Your task to perform on an android device: turn vacation reply on in the gmail app Image 0: 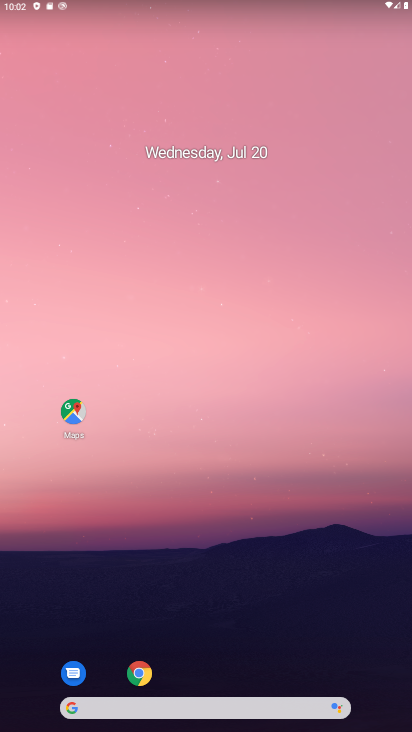
Step 0: drag from (197, 276) to (225, 387)
Your task to perform on an android device: turn vacation reply on in the gmail app Image 1: 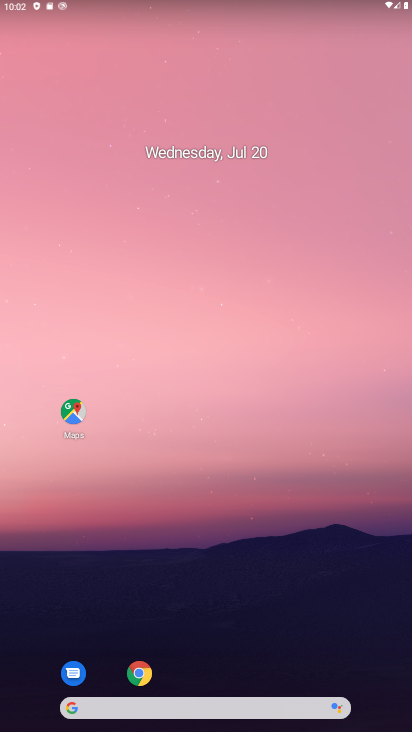
Step 1: drag from (190, 160) to (152, 173)
Your task to perform on an android device: turn vacation reply on in the gmail app Image 2: 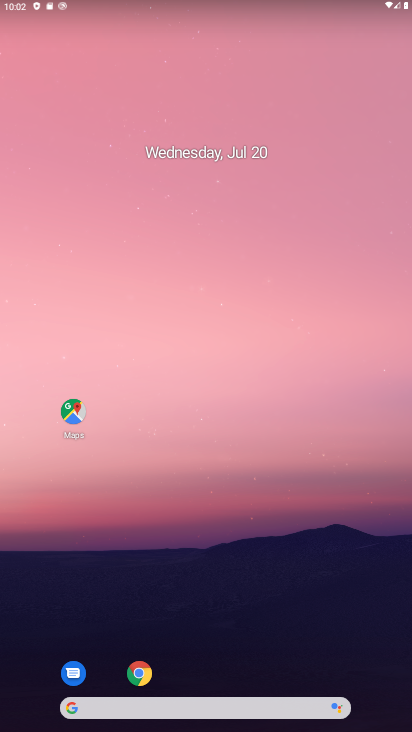
Step 2: drag from (163, 180) to (172, 276)
Your task to perform on an android device: turn vacation reply on in the gmail app Image 3: 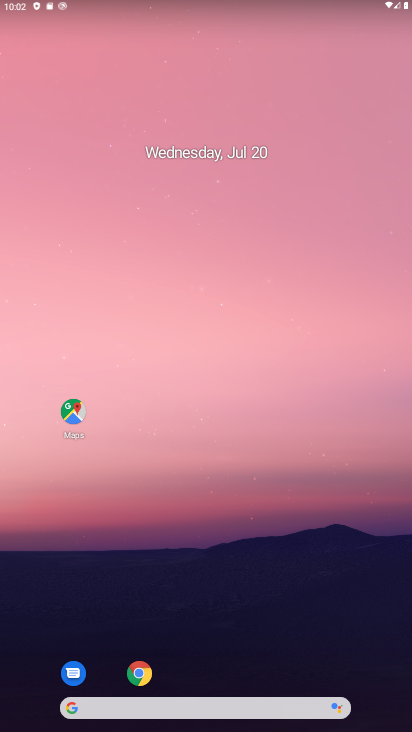
Step 3: drag from (172, 566) to (143, 291)
Your task to perform on an android device: turn vacation reply on in the gmail app Image 4: 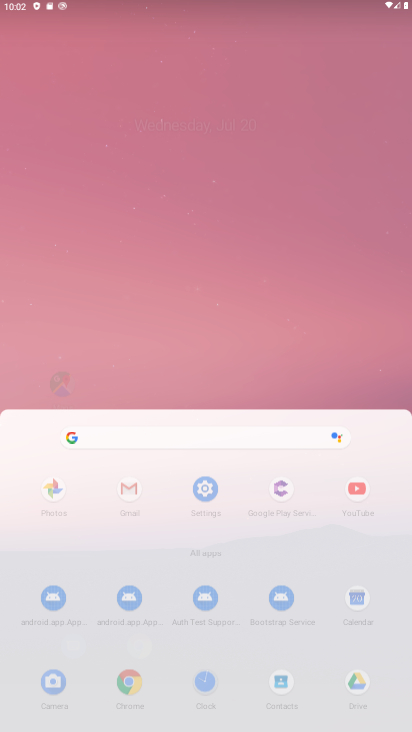
Step 4: drag from (170, 484) to (139, 201)
Your task to perform on an android device: turn vacation reply on in the gmail app Image 5: 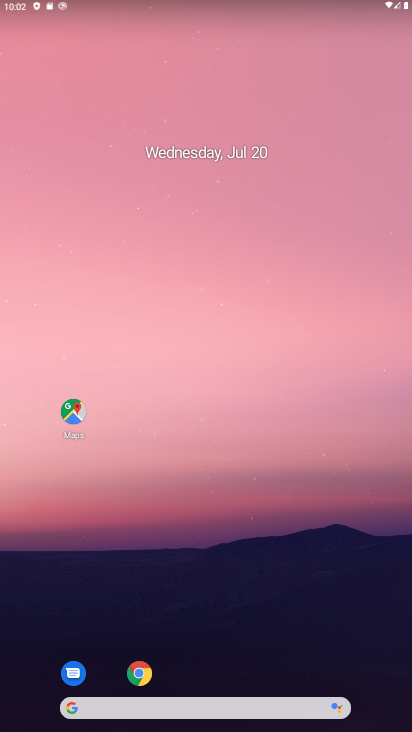
Step 5: drag from (216, 497) to (201, 106)
Your task to perform on an android device: turn vacation reply on in the gmail app Image 6: 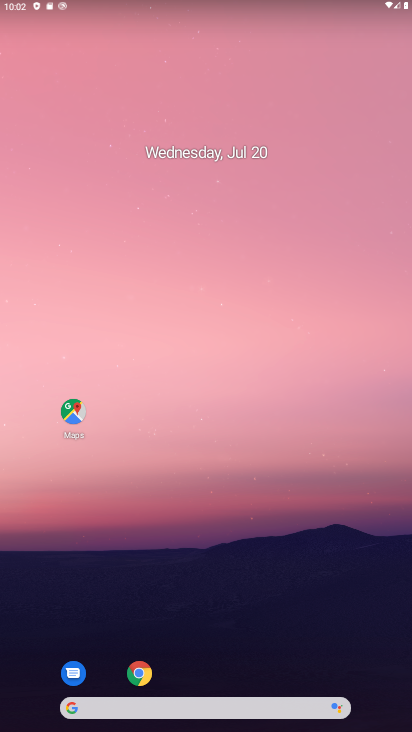
Step 6: drag from (195, 541) to (153, 118)
Your task to perform on an android device: turn vacation reply on in the gmail app Image 7: 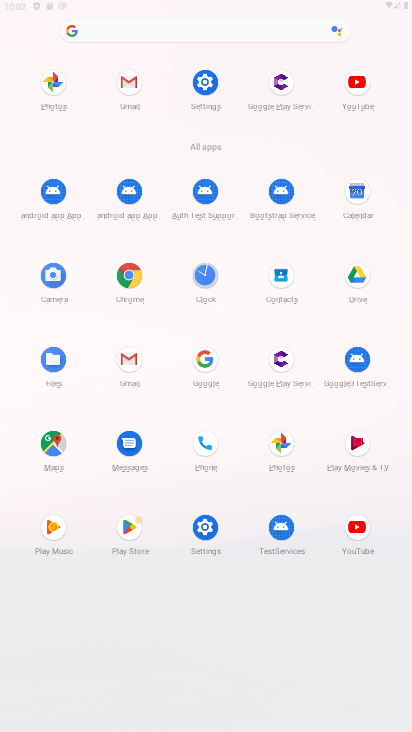
Step 7: drag from (285, 562) to (270, 200)
Your task to perform on an android device: turn vacation reply on in the gmail app Image 8: 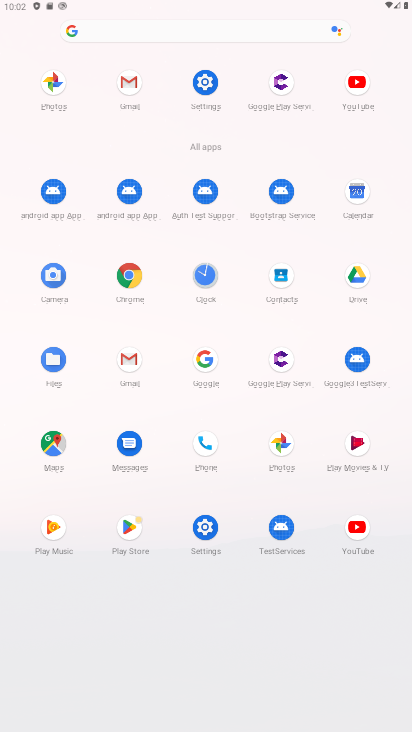
Step 8: click (129, 365)
Your task to perform on an android device: turn vacation reply on in the gmail app Image 9: 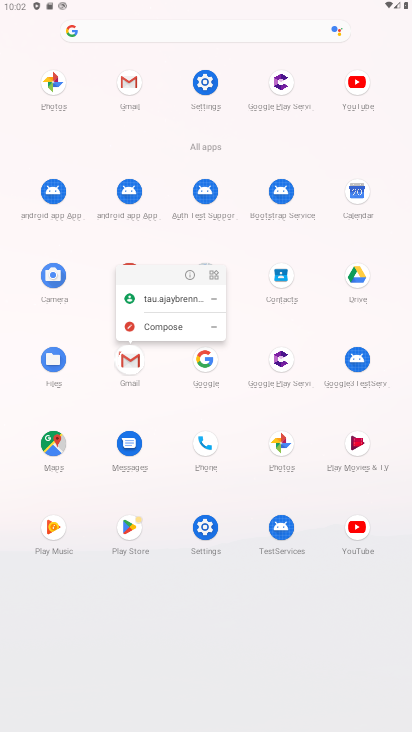
Step 9: click (129, 365)
Your task to perform on an android device: turn vacation reply on in the gmail app Image 10: 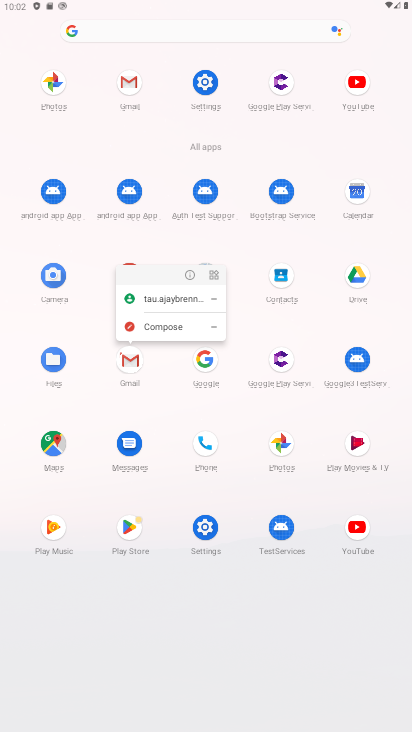
Step 10: click (129, 365)
Your task to perform on an android device: turn vacation reply on in the gmail app Image 11: 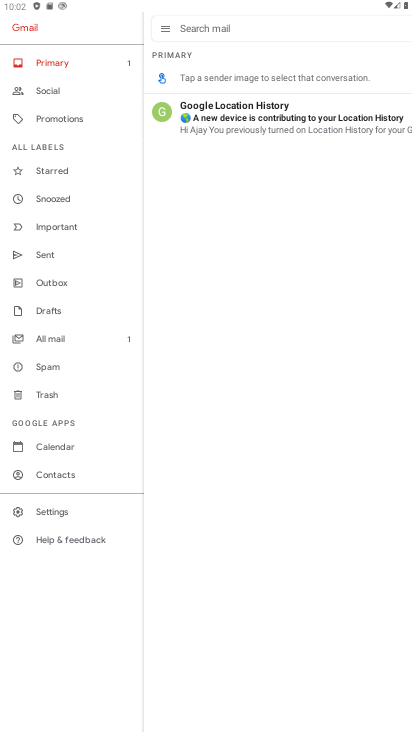
Step 11: click (49, 506)
Your task to perform on an android device: turn vacation reply on in the gmail app Image 12: 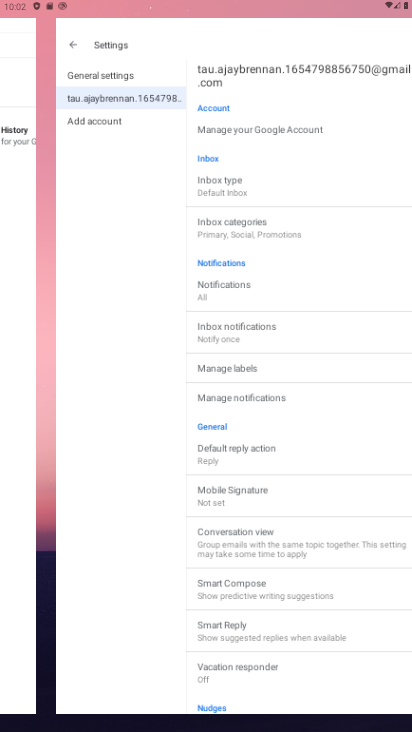
Step 12: click (49, 509)
Your task to perform on an android device: turn vacation reply on in the gmail app Image 13: 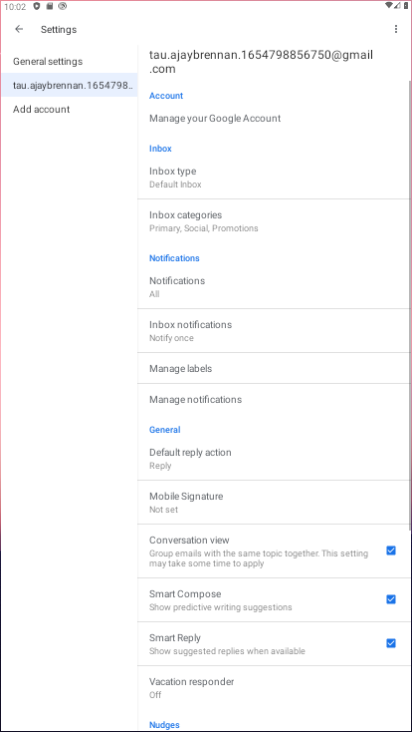
Step 13: click (57, 513)
Your task to perform on an android device: turn vacation reply on in the gmail app Image 14: 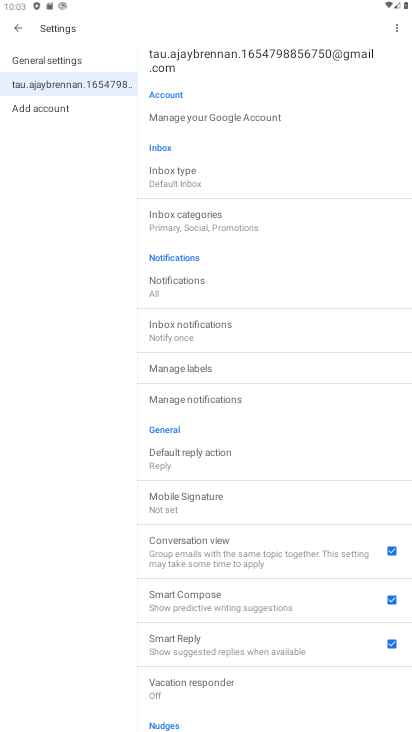
Step 14: click (185, 696)
Your task to perform on an android device: turn vacation reply on in the gmail app Image 15: 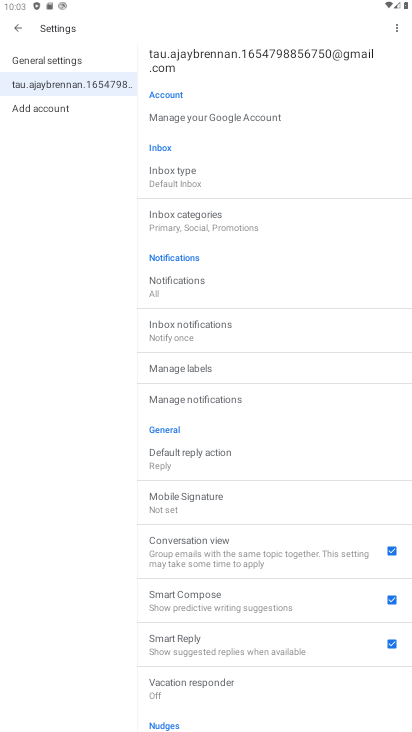
Step 15: click (194, 683)
Your task to perform on an android device: turn vacation reply on in the gmail app Image 16: 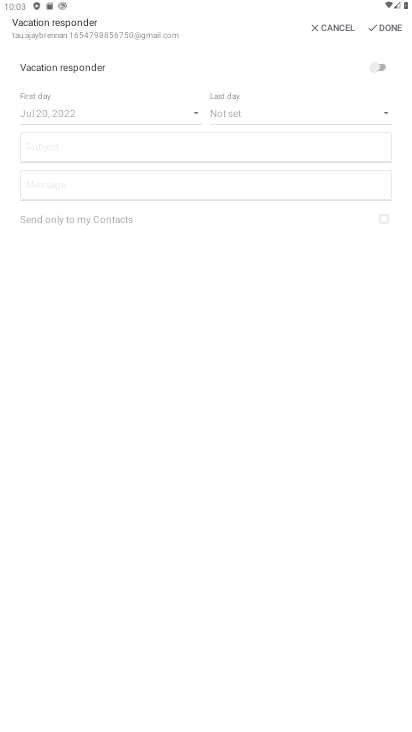
Step 16: click (197, 680)
Your task to perform on an android device: turn vacation reply on in the gmail app Image 17: 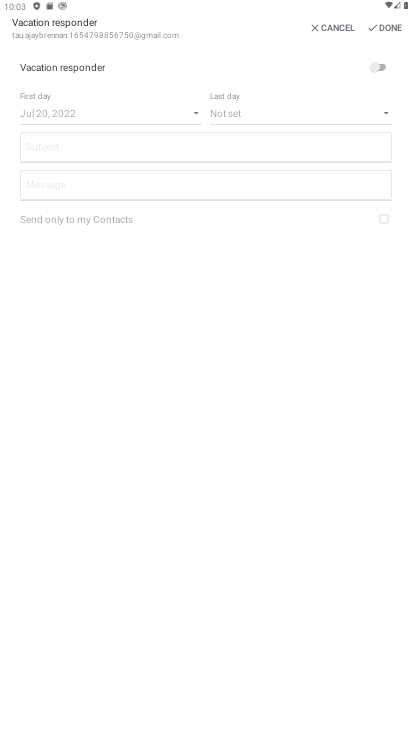
Step 17: click (206, 684)
Your task to perform on an android device: turn vacation reply on in the gmail app Image 18: 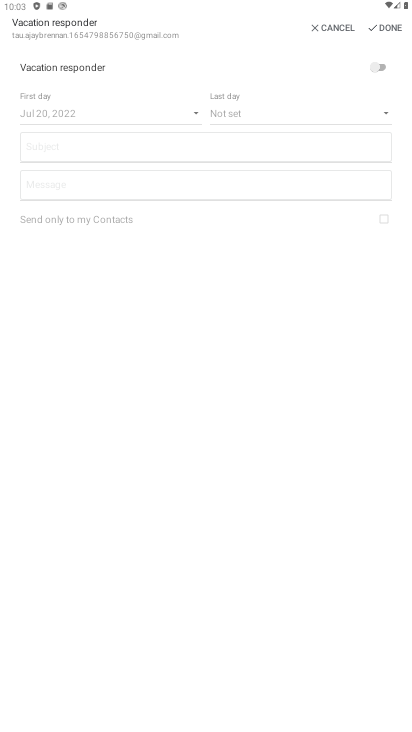
Step 18: click (374, 63)
Your task to perform on an android device: turn vacation reply on in the gmail app Image 19: 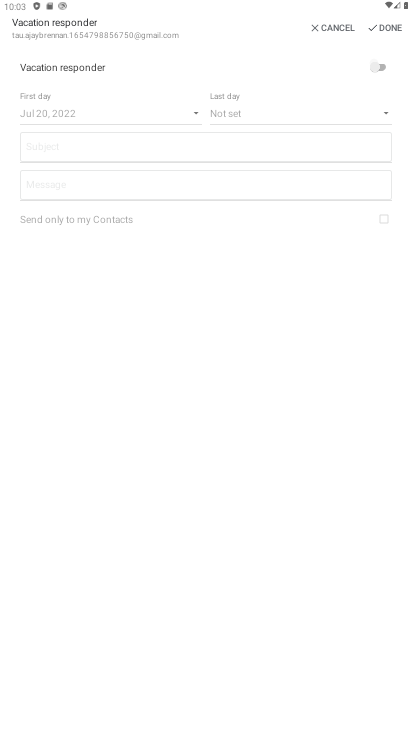
Step 19: click (376, 61)
Your task to perform on an android device: turn vacation reply on in the gmail app Image 20: 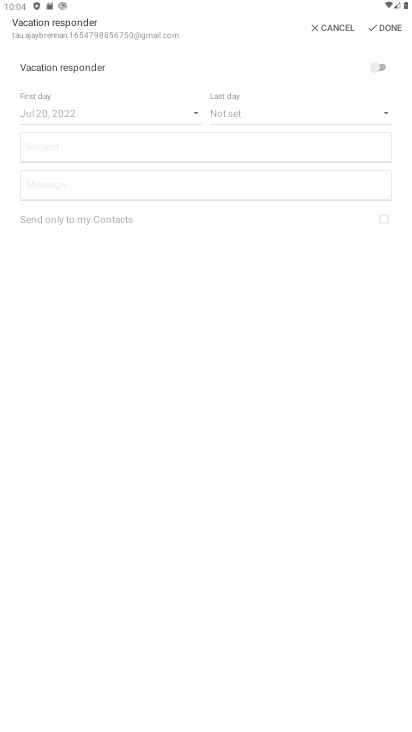
Step 20: click (374, 64)
Your task to perform on an android device: turn vacation reply on in the gmail app Image 21: 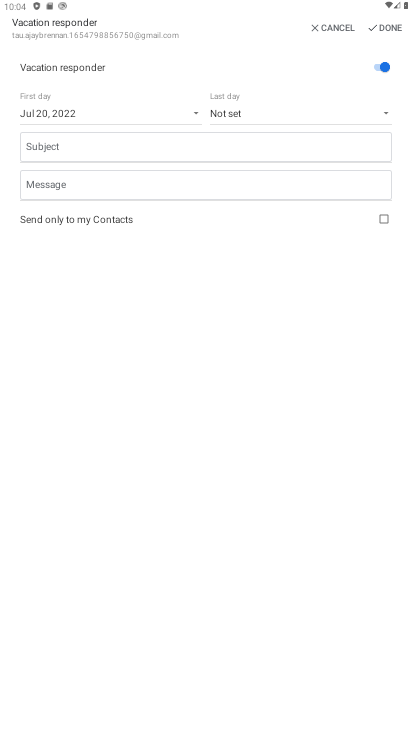
Step 21: task complete